Your task to perform on an android device: Open Google Maps Image 0: 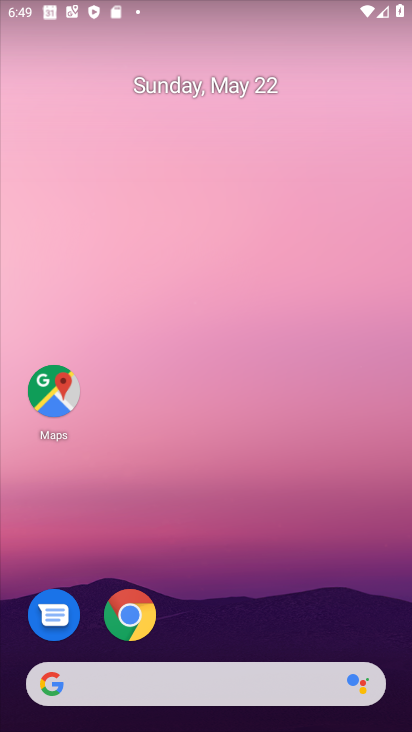
Step 0: click (48, 391)
Your task to perform on an android device: Open Google Maps Image 1: 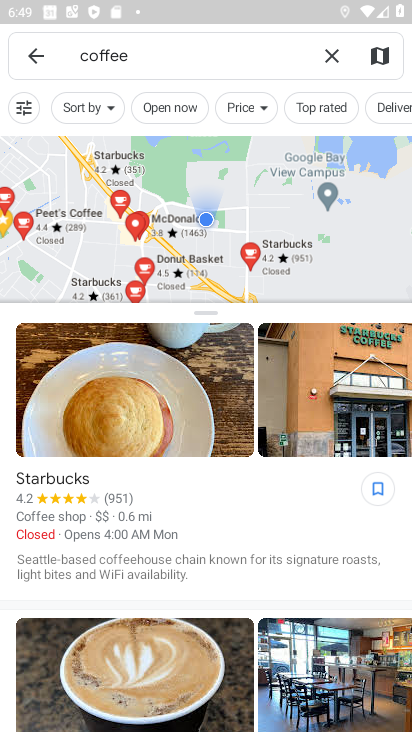
Step 1: task complete